Your task to perform on an android device: Open the stopwatch Image 0: 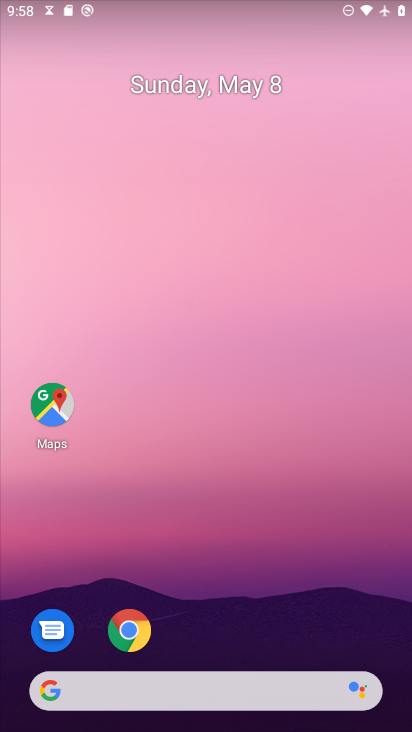
Step 0: drag from (170, 685) to (313, 68)
Your task to perform on an android device: Open the stopwatch Image 1: 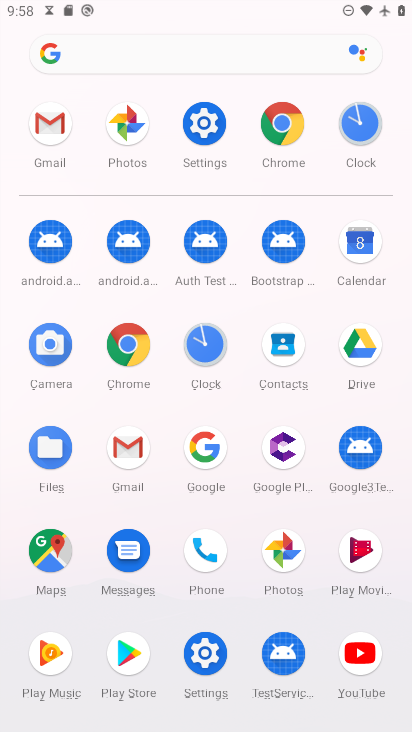
Step 1: click (362, 132)
Your task to perform on an android device: Open the stopwatch Image 2: 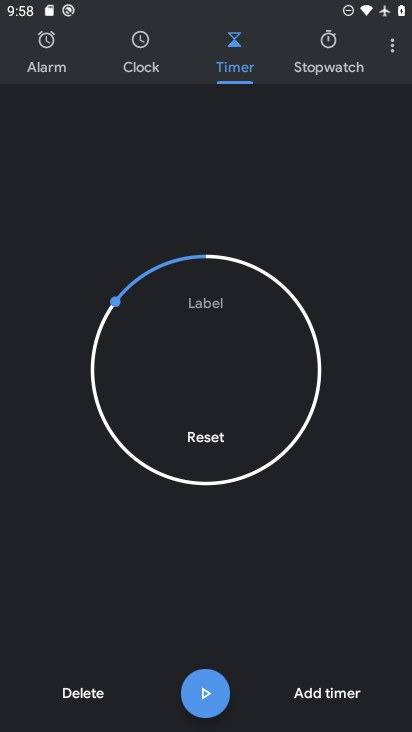
Step 2: click (328, 70)
Your task to perform on an android device: Open the stopwatch Image 3: 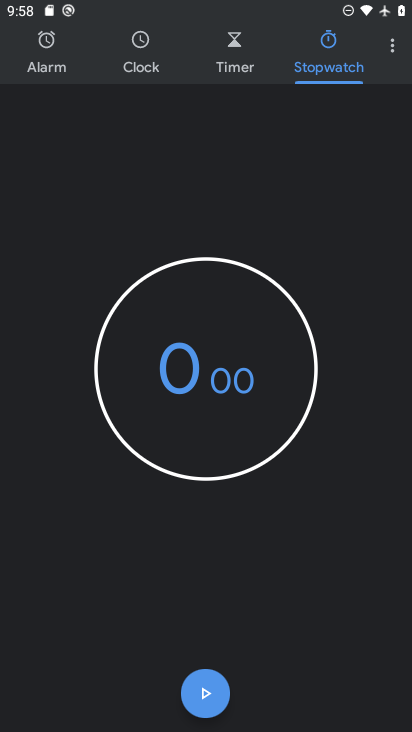
Step 3: task complete